Your task to perform on an android device: add a label to a message in the gmail app Image 0: 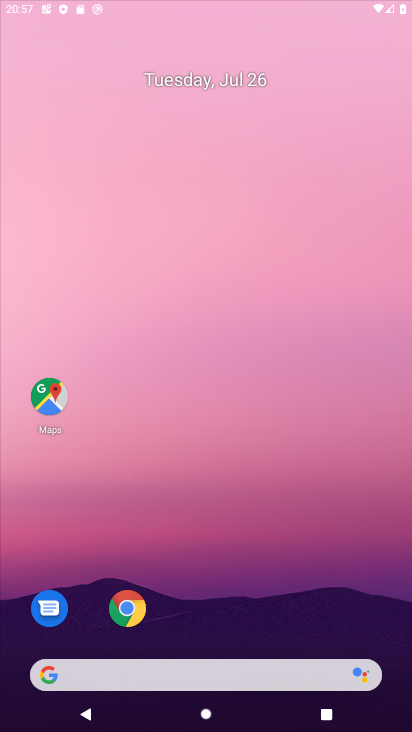
Step 0: click (331, 199)
Your task to perform on an android device: add a label to a message in the gmail app Image 1: 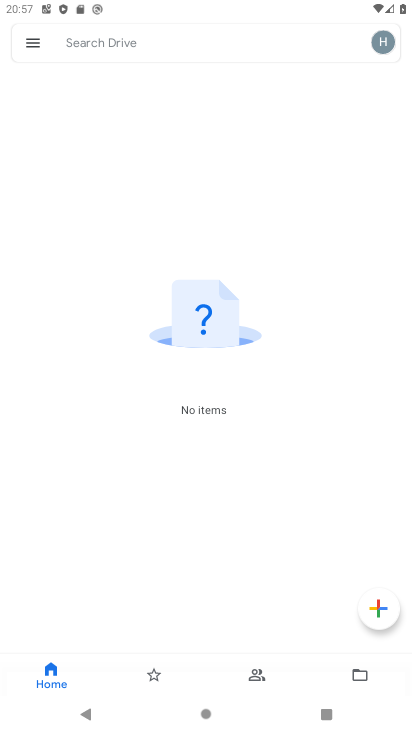
Step 1: press home button
Your task to perform on an android device: add a label to a message in the gmail app Image 2: 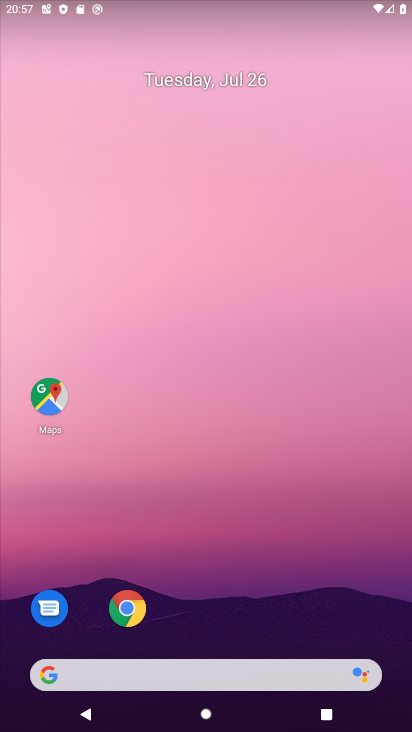
Step 2: drag from (31, 684) to (234, 190)
Your task to perform on an android device: add a label to a message in the gmail app Image 3: 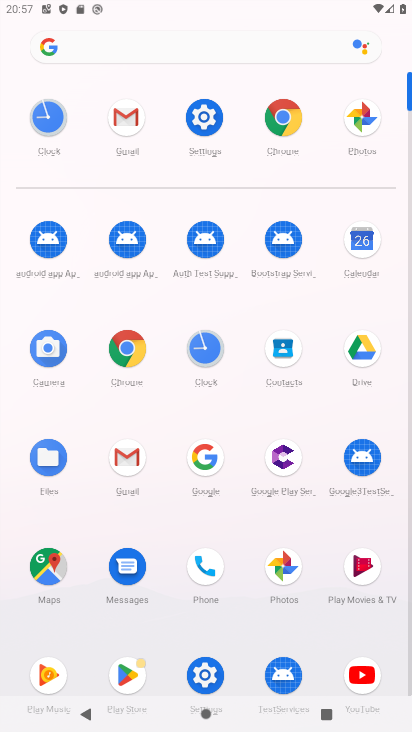
Step 3: click (128, 461)
Your task to perform on an android device: add a label to a message in the gmail app Image 4: 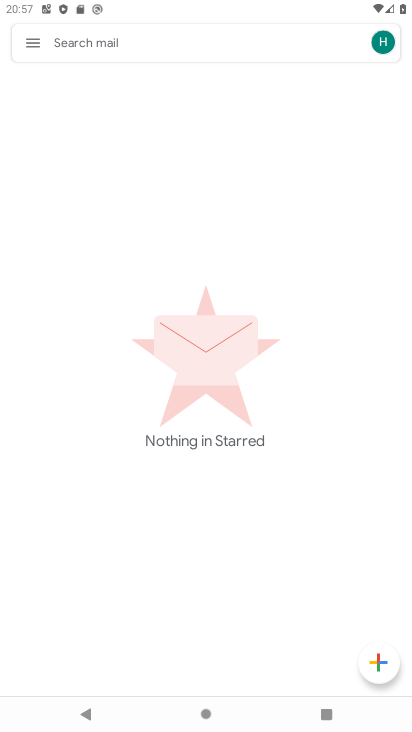
Step 4: click (37, 43)
Your task to perform on an android device: add a label to a message in the gmail app Image 5: 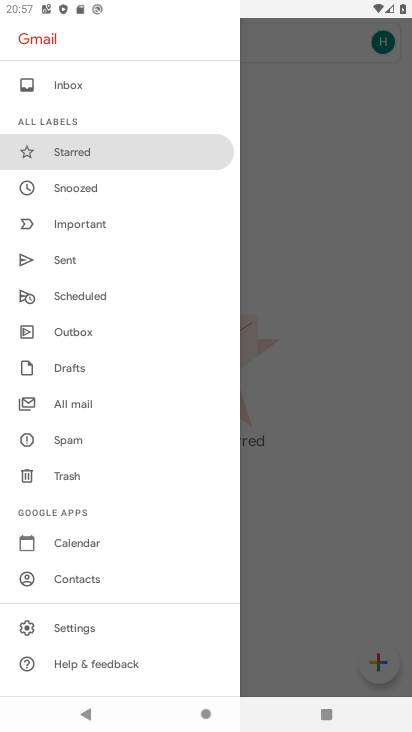
Step 5: click (65, 87)
Your task to perform on an android device: add a label to a message in the gmail app Image 6: 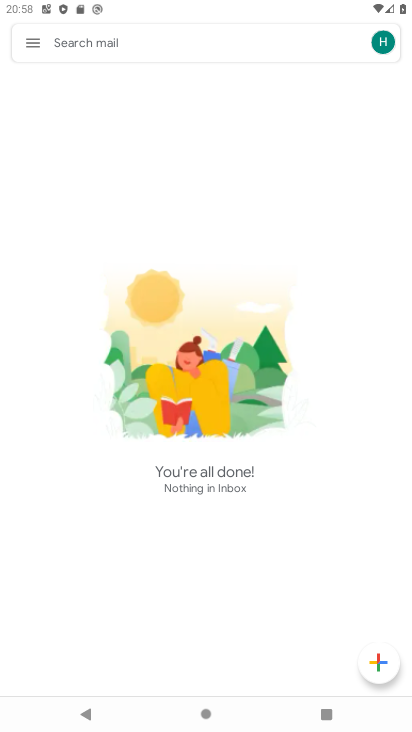
Step 6: task complete